Your task to perform on an android device: turn notification dots on Image 0: 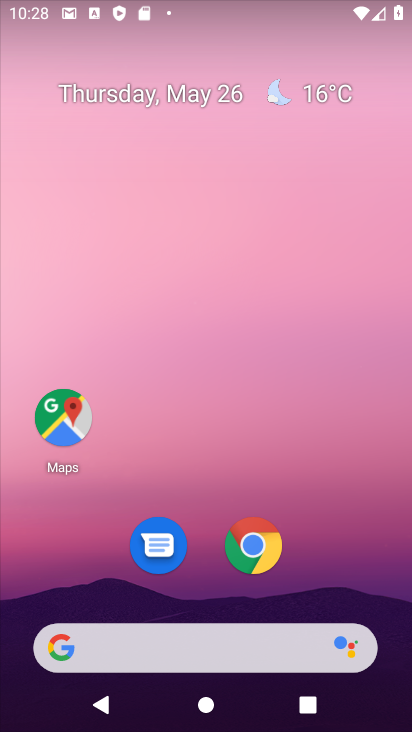
Step 0: press home button
Your task to perform on an android device: turn notification dots on Image 1: 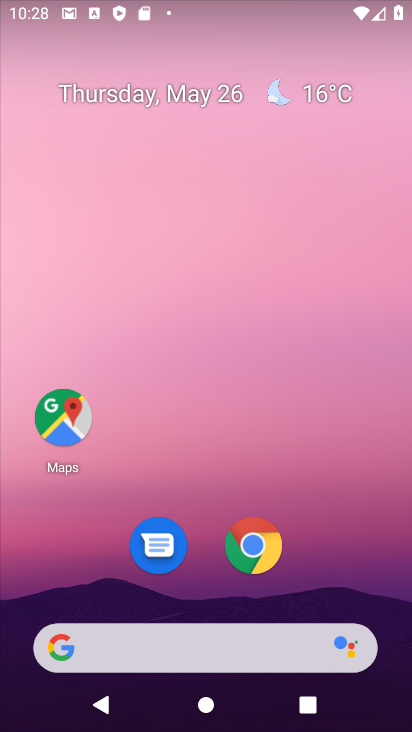
Step 1: drag from (308, 602) to (278, 207)
Your task to perform on an android device: turn notification dots on Image 2: 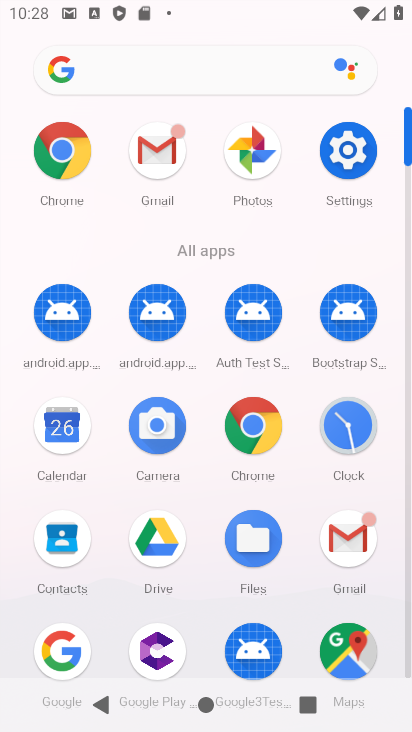
Step 2: click (343, 159)
Your task to perform on an android device: turn notification dots on Image 3: 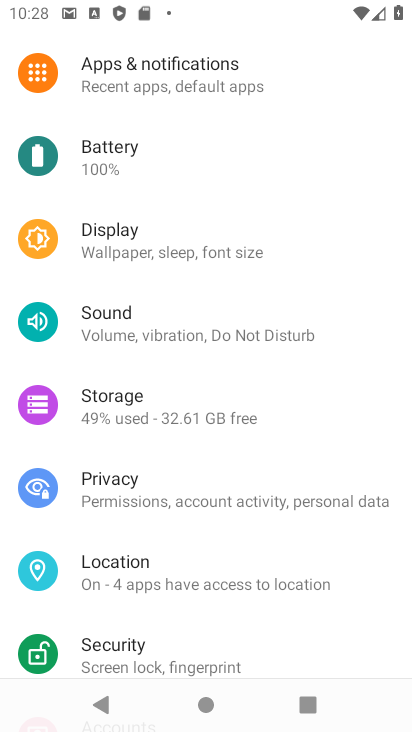
Step 3: click (166, 66)
Your task to perform on an android device: turn notification dots on Image 4: 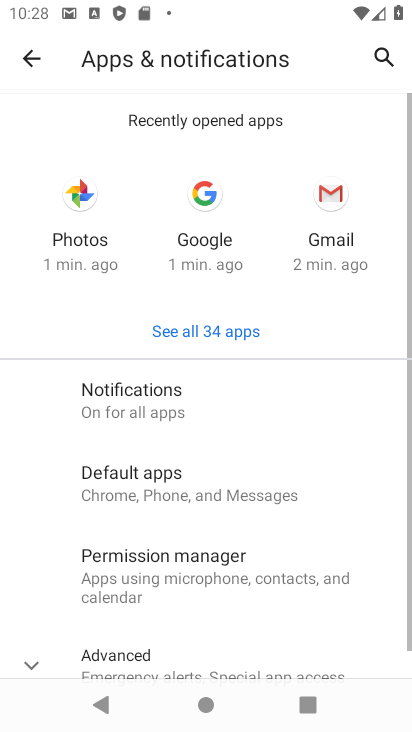
Step 4: click (140, 397)
Your task to perform on an android device: turn notification dots on Image 5: 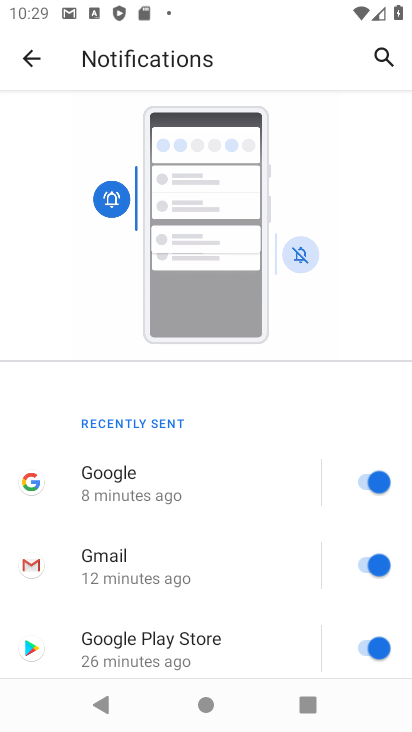
Step 5: drag from (283, 428) to (257, 22)
Your task to perform on an android device: turn notification dots on Image 6: 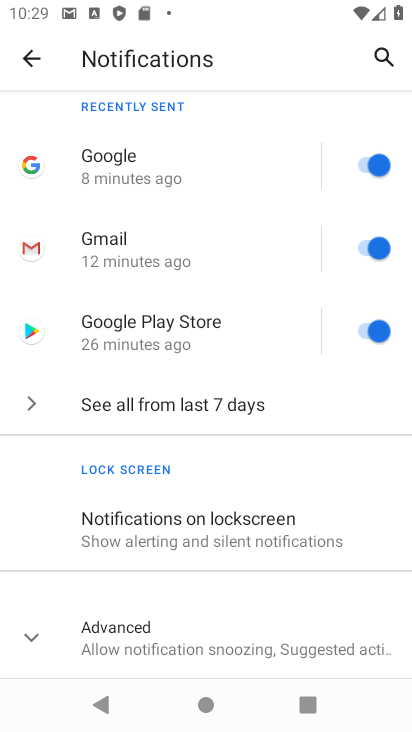
Step 6: click (133, 645)
Your task to perform on an android device: turn notification dots on Image 7: 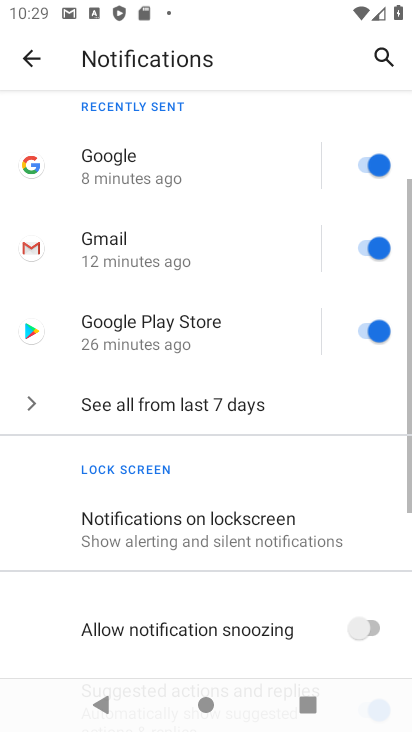
Step 7: task complete